Your task to perform on an android device: Open settings on Google Maps Image 0: 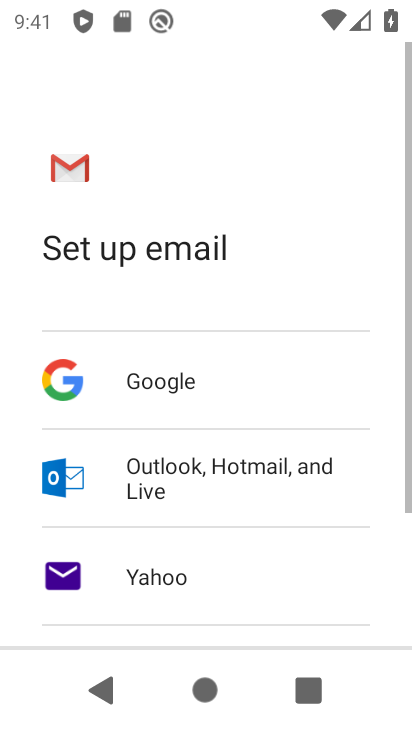
Step 0: press home button
Your task to perform on an android device: Open settings on Google Maps Image 1: 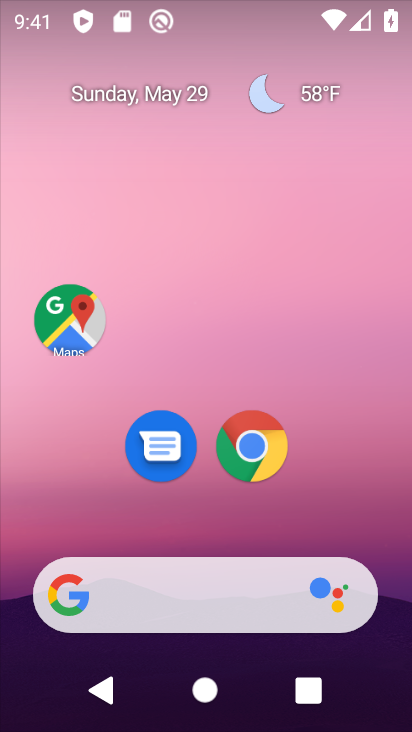
Step 1: drag from (198, 542) to (245, 199)
Your task to perform on an android device: Open settings on Google Maps Image 2: 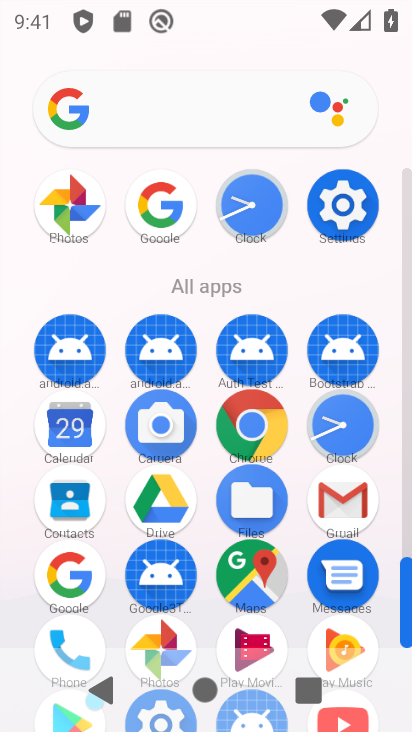
Step 2: click (245, 586)
Your task to perform on an android device: Open settings on Google Maps Image 3: 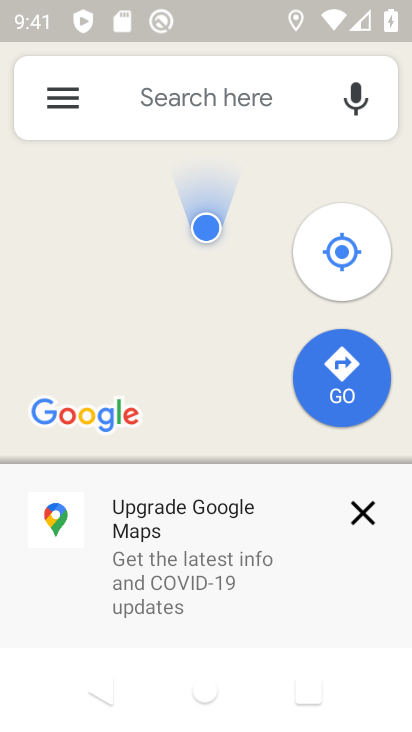
Step 3: click (83, 94)
Your task to perform on an android device: Open settings on Google Maps Image 4: 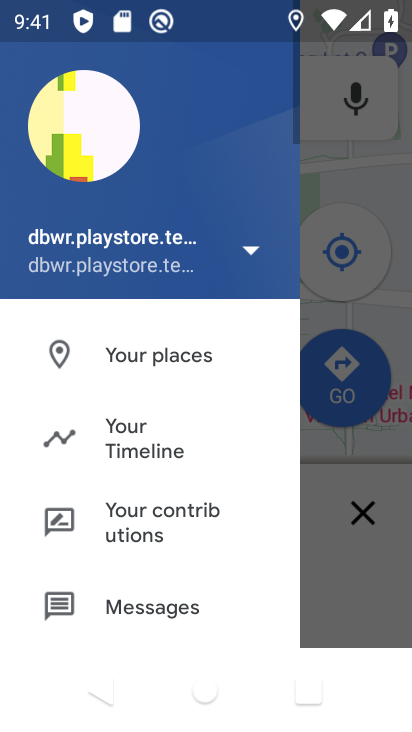
Step 4: drag from (143, 614) to (166, 320)
Your task to perform on an android device: Open settings on Google Maps Image 5: 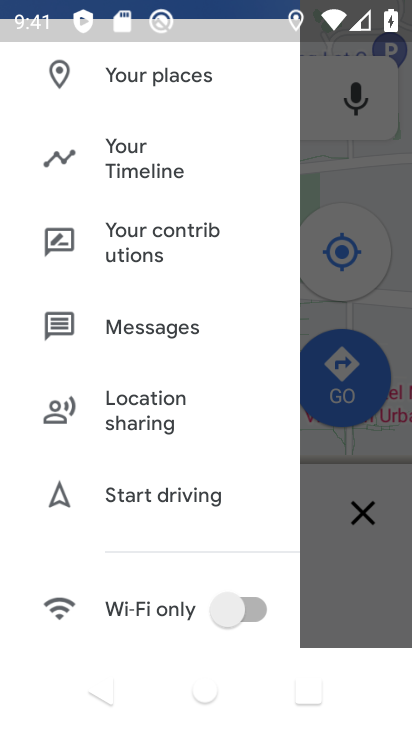
Step 5: drag from (156, 619) to (179, 327)
Your task to perform on an android device: Open settings on Google Maps Image 6: 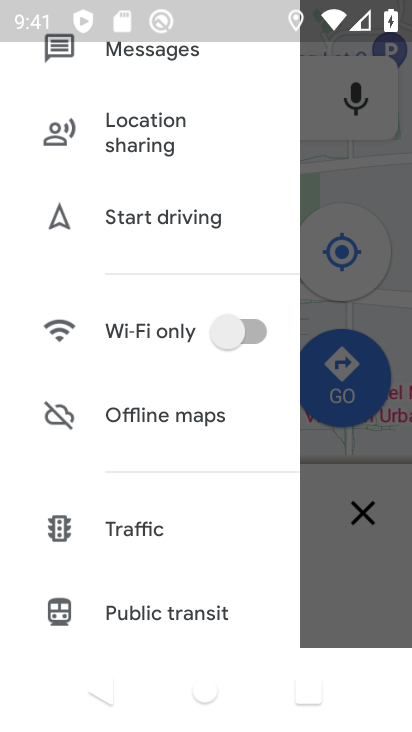
Step 6: drag from (185, 610) to (227, 324)
Your task to perform on an android device: Open settings on Google Maps Image 7: 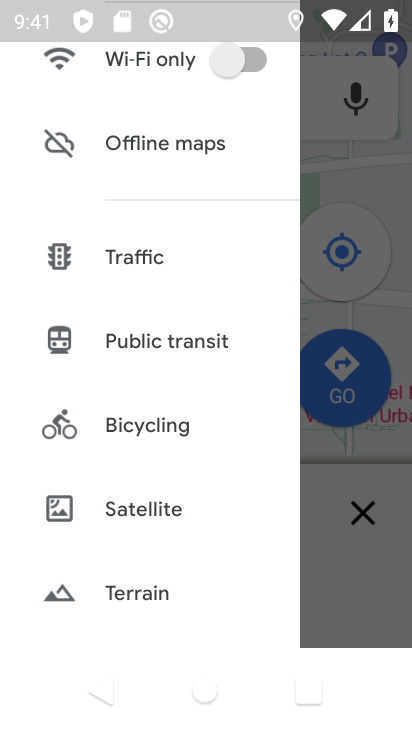
Step 7: drag from (151, 588) to (192, 276)
Your task to perform on an android device: Open settings on Google Maps Image 8: 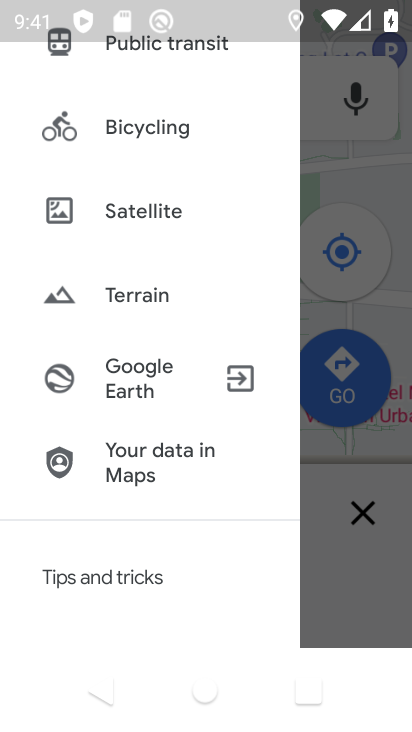
Step 8: drag from (179, 600) to (218, 304)
Your task to perform on an android device: Open settings on Google Maps Image 9: 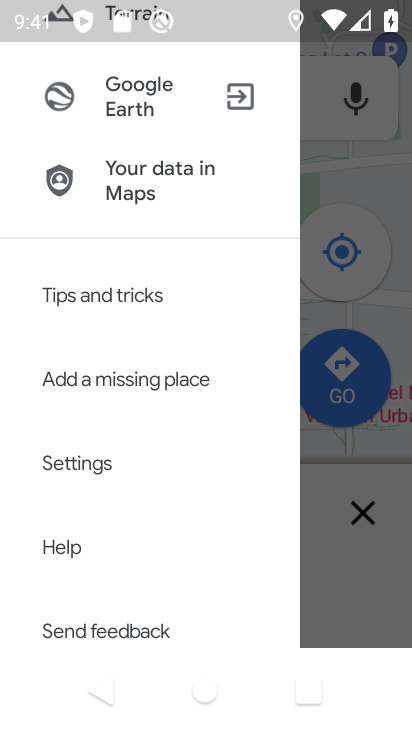
Step 9: click (84, 469)
Your task to perform on an android device: Open settings on Google Maps Image 10: 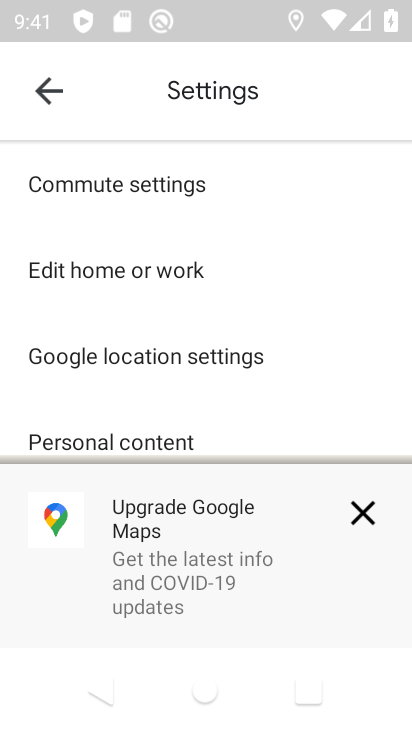
Step 10: click (366, 508)
Your task to perform on an android device: Open settings on Google Maps Image 11: 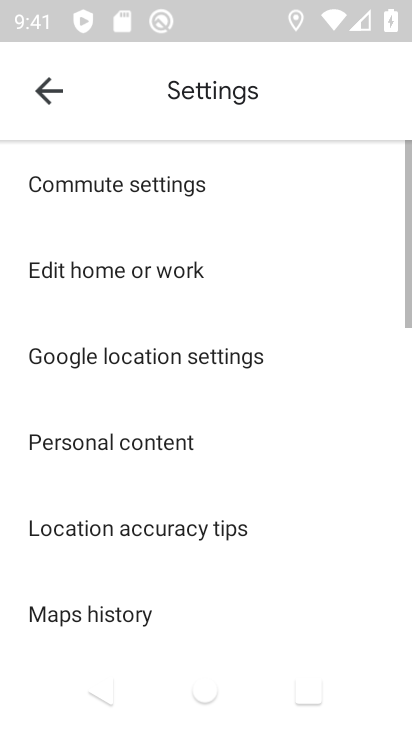
Step 11: task complete